Your task to perform on an android device: set an alarm Image 0: 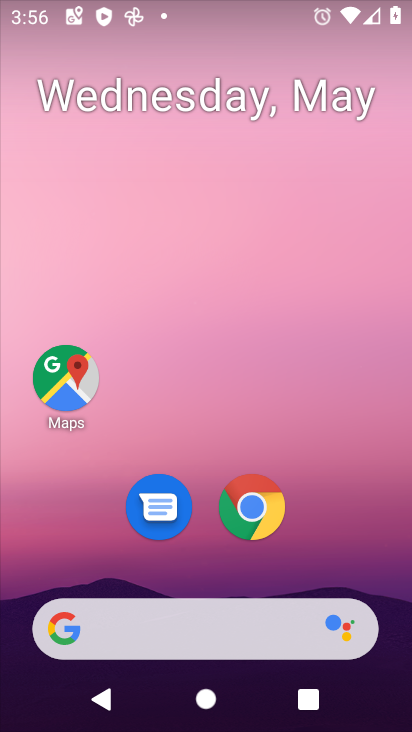
Step 0: drag from (310, 562) to (300, 38)
Your task to perform on an android device: set an alarm Image 1: 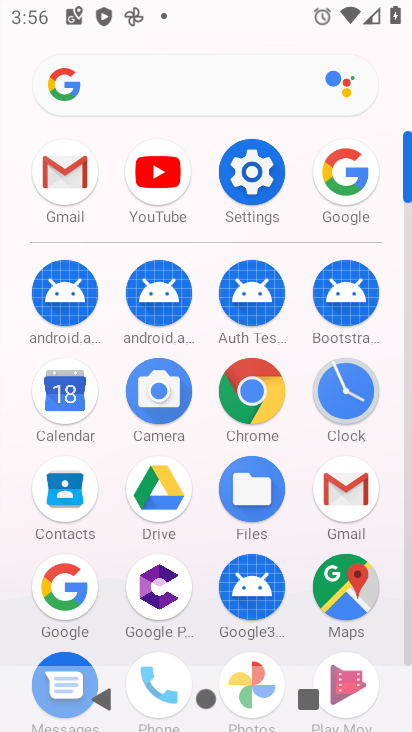
Step 1: click (334, 400)
Your task to perform on an android device: set an alarm Image 2: 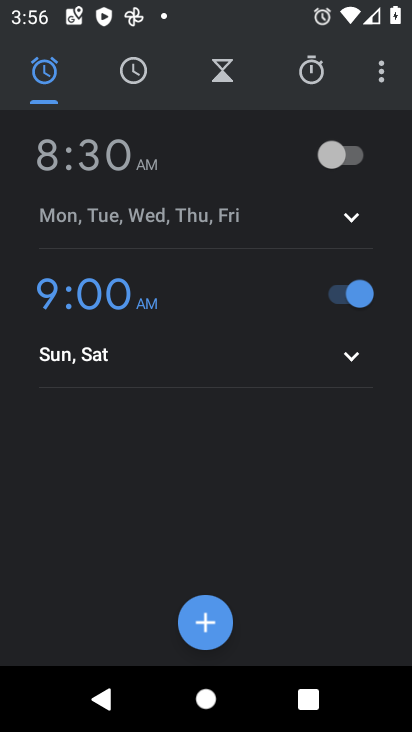
Step 2: click (348, 149)
Your task to perform on an android device: set an alarm Image 3: 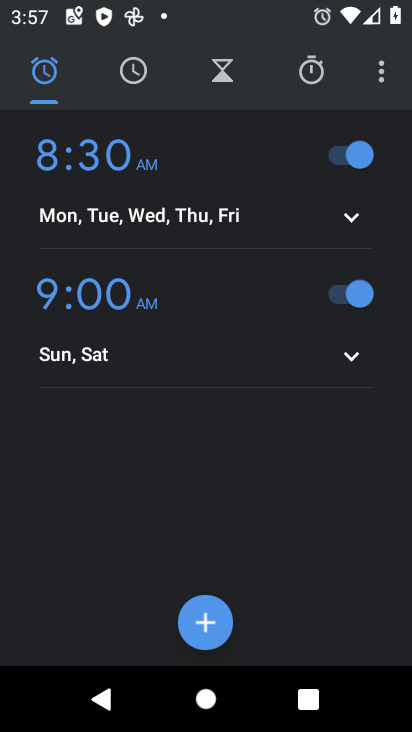
Step 3: task complete